Your task to perform on an android device: turn on the 12-hour format for clock Image 0: 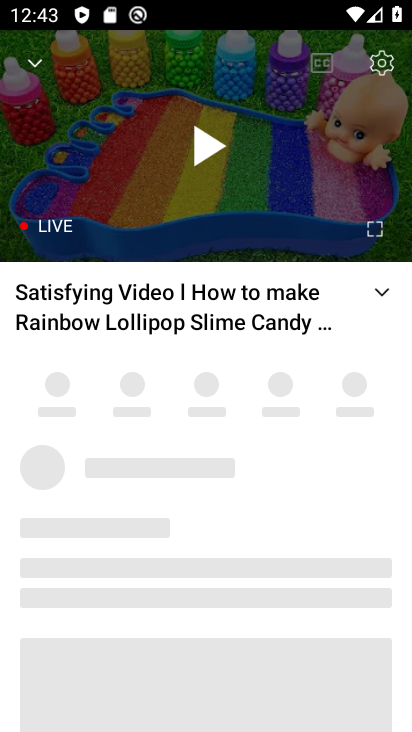
Step 0: press home button
Your task to perform on an android device: turn on the 12-hour format for clock Image 1: 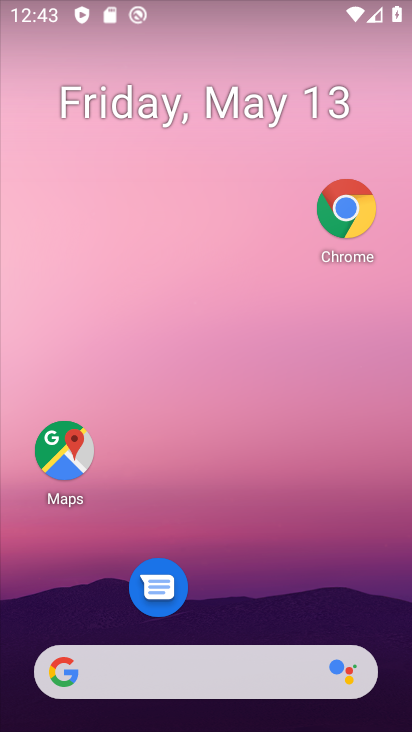
Step 1: drag from (204, 652) to (311, 60)
Your task to perform on an android device: turn on the 12-hour format for clock Image 2: 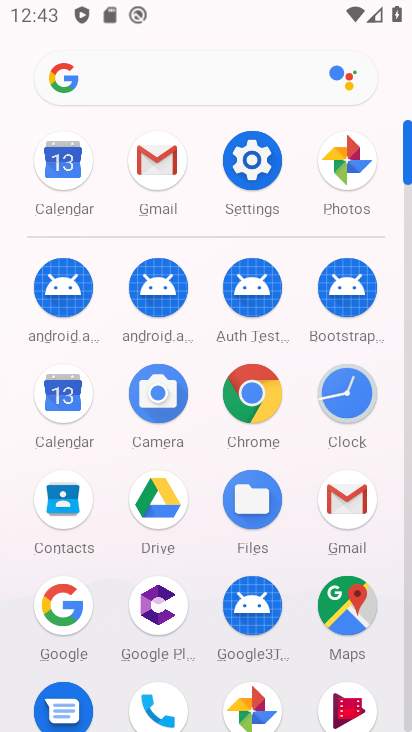
Step 2: click (348, 395)
Your task to perform on an android device: turn on the 12-hour format for clock Image 3: 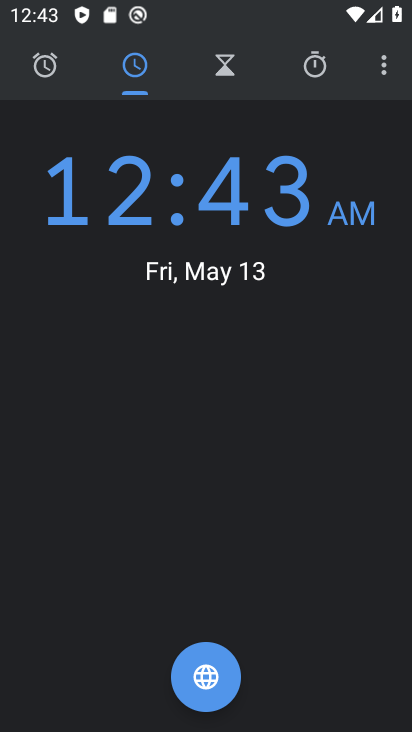
Step 3: drag from (379, 56) to (263, 137)
Your task to perform on an android device: turn on the 12-hour format for clock Image 4: 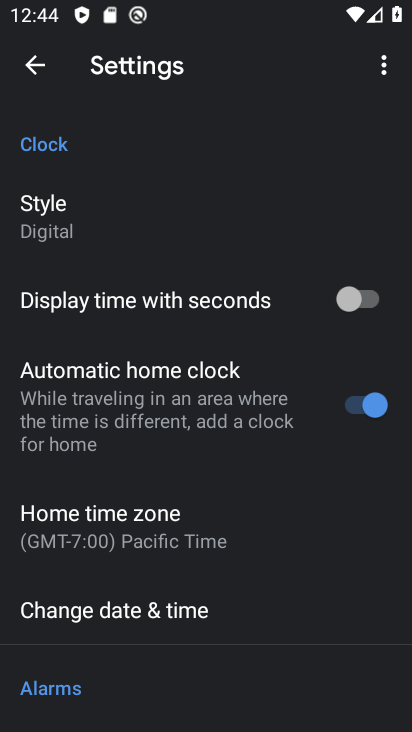
Step 4: click (143, 620)
Your task to perform on an android device: turn on the 12-hour format for clock Image 5: 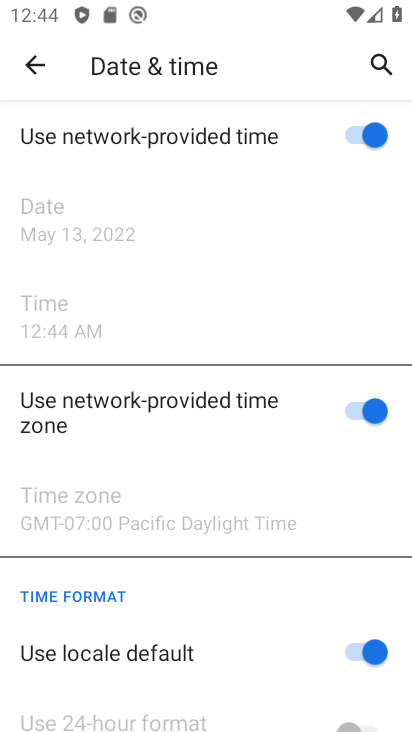
Step 5: task complete